Your task to perform on an android device: read, delete, or share a saved page in the chrome app Image 0: 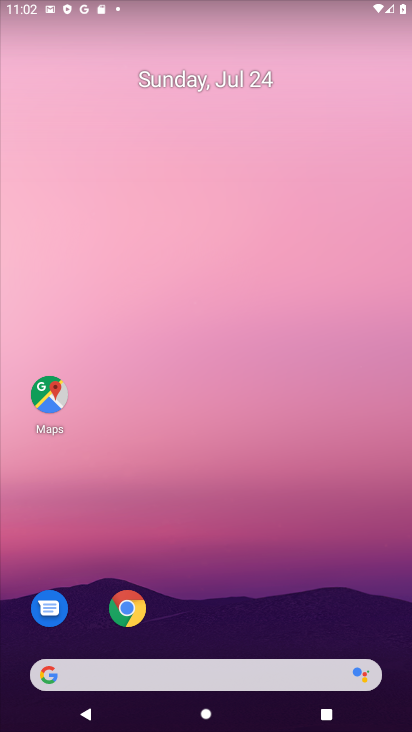
Step 0: drag from (213, 546) to (228, 111)
Your task to perform on an android device: read, delete, or share a saved page in the chrome app Image 1: 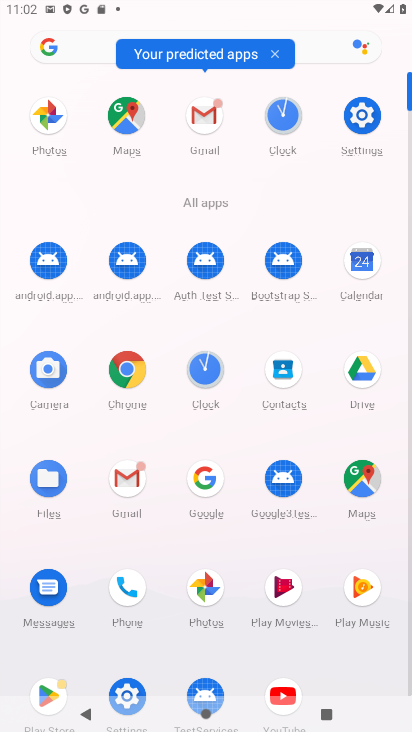
Step 1: click (117, 380)
Your task to perform on an android device: read, delete, or share a saved page in the chrome app Image 2: 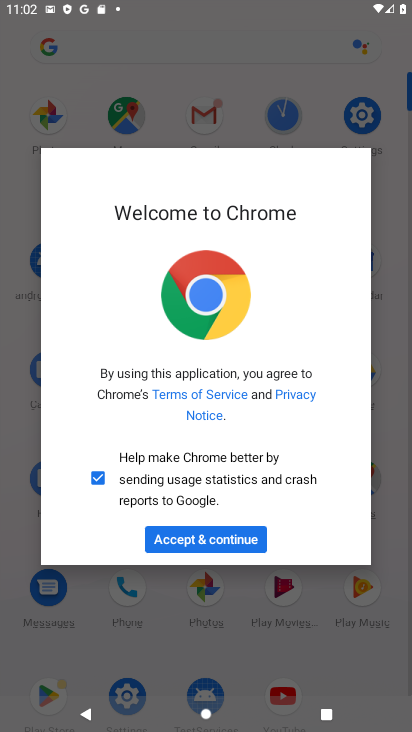
Step 2: click (176, 540)
Your task to perform on an android device: read, delete, or share a saved page in the chrome app Image 3: 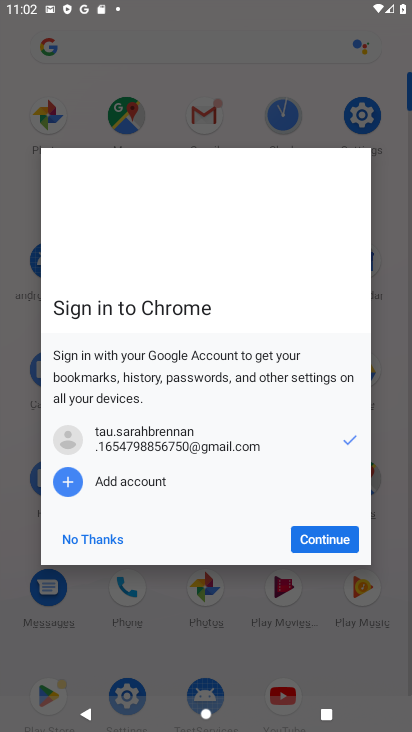
Step 3: click (98, 542)
Your task to perform on an android device: read, delete, or share a saved page in the chrome app Image 4: 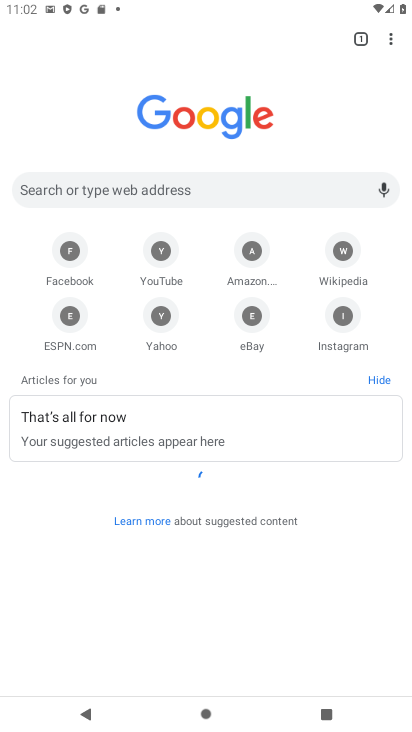
Step 4: task complete